Your task to perform on an android device: open app "Indeed Job Search" Image 0: 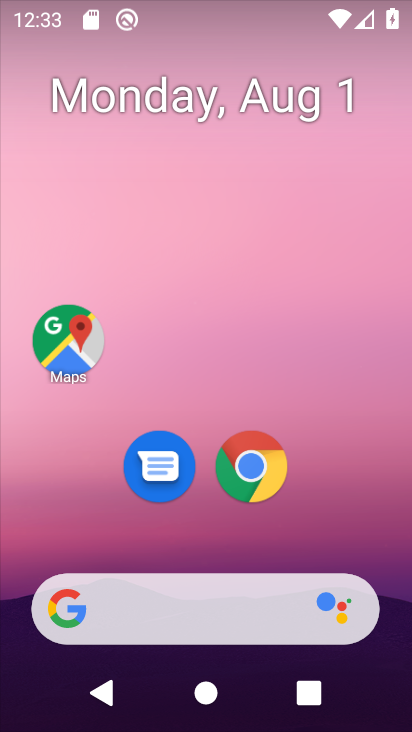
Step 0: drag from (206, 543) to (63, 218)
Your task to perform on an android device: open app "Indeed Job Search" Image 1: 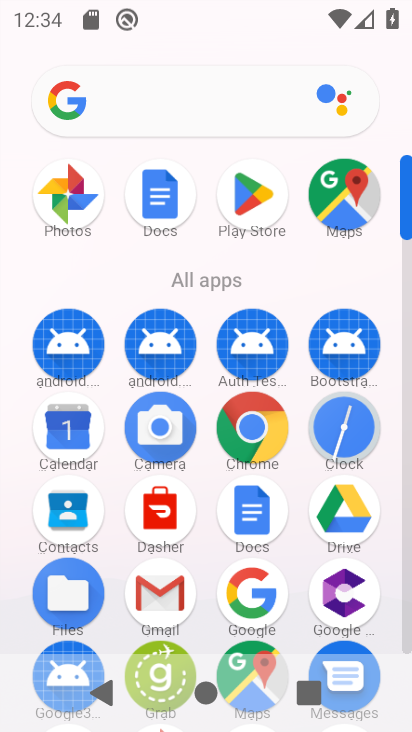
Step 1: click (253, 198)
Your task to perform on an android device: open app "Indeed Job Search" Image 2: 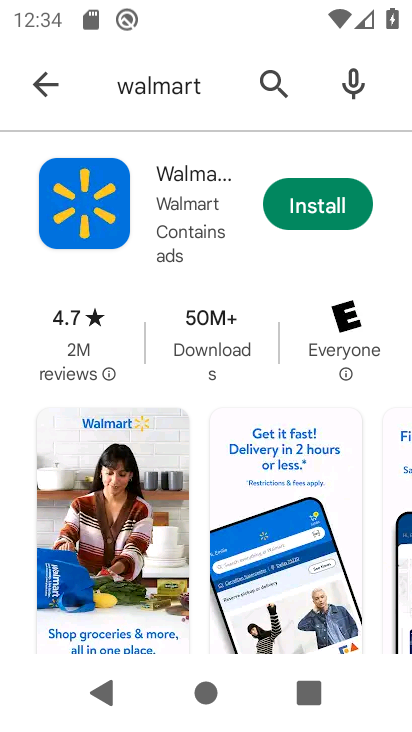
Step 2: click (161, 95)
Your task to perform on an android device: open app "Indeed Job Search" Image 3: 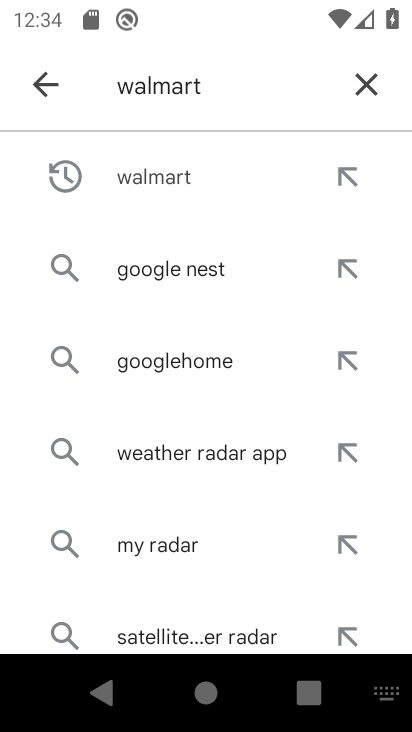
Step 3: click (360, 82)
Your task to perform on an android device: open app "Indeed Job Search" Image 4: 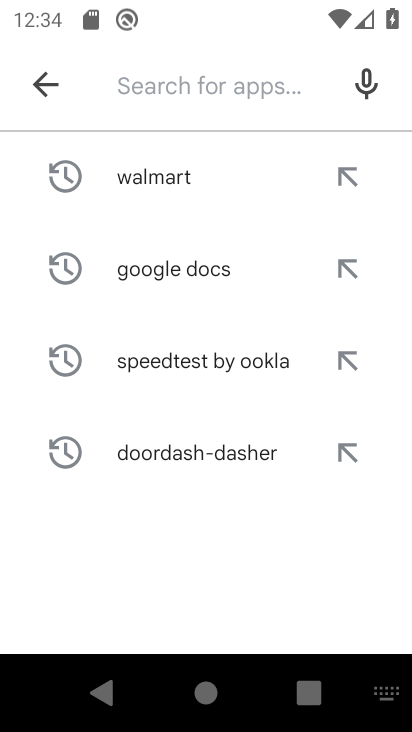
Step 4: type "indeed job search"
Your task to perform on an android device: open app "Indeed Job Search" Image 5: 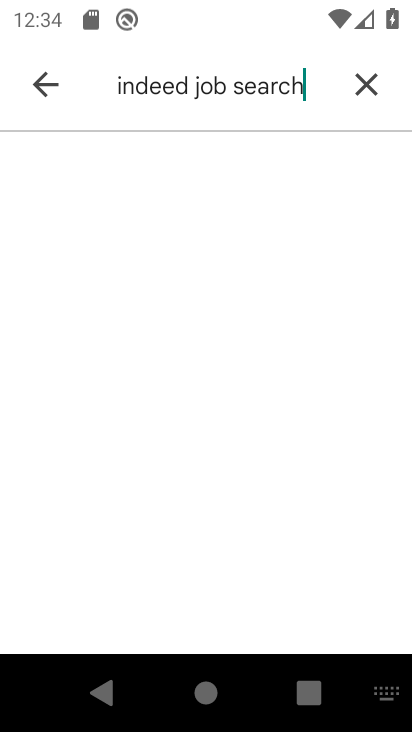
Step 5: click (151, 192)
Your task to perform on an android device: open app "Indeed Job Search" Image 6: 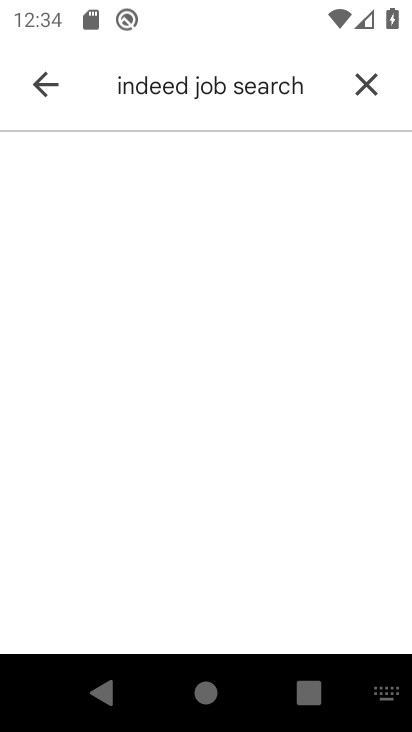
Step 6: click (181, 181)
Your task to perform on an android device: open app "Indeed Job Search" Image 7: 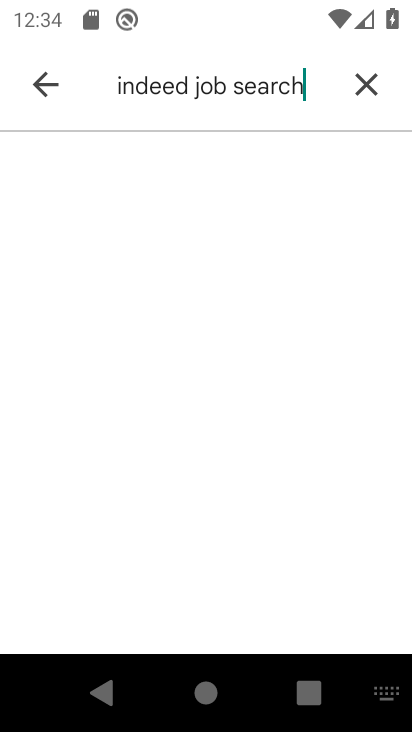
Step 7: drag from (240, 290) to (356, 9)
Your task to perform on an android device: open app "Indeed Job Search" Image 8: 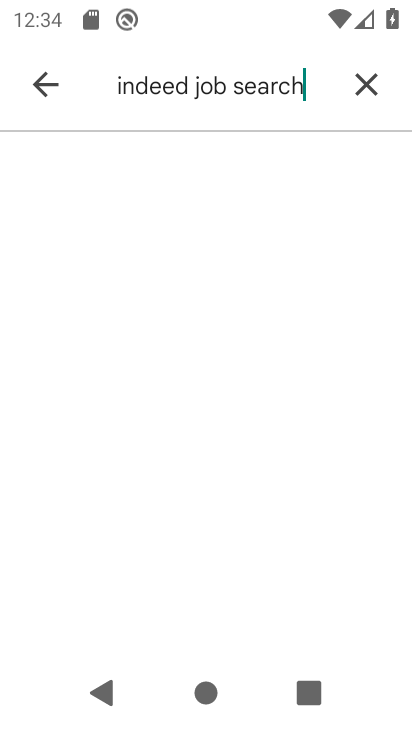
Step 8: drag from (146, 197) to (51, 78)
Your task to perform on an android device: open app "Indeed Job Search" Image 9: 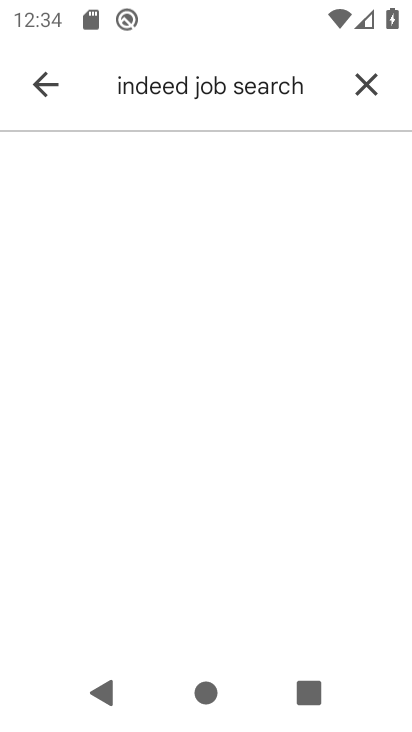
Step 9: click (366, 85)
Your task to perform on an android device: open app "Indeed Job Search" Image 10: 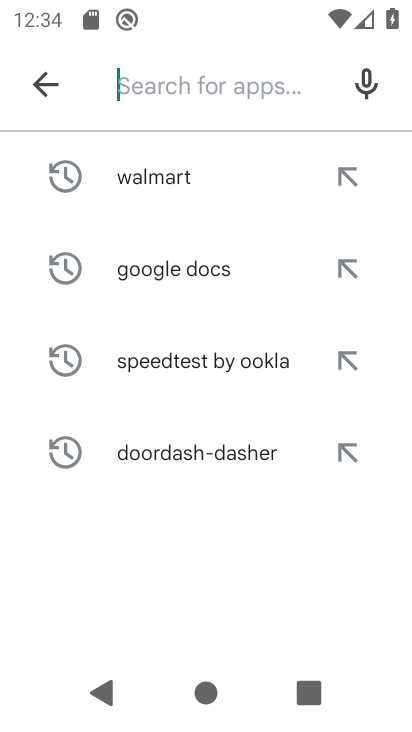
Step 10: type "indeed"
Your task to perform on an android device: open app "Indeed Job Search" Image 11: 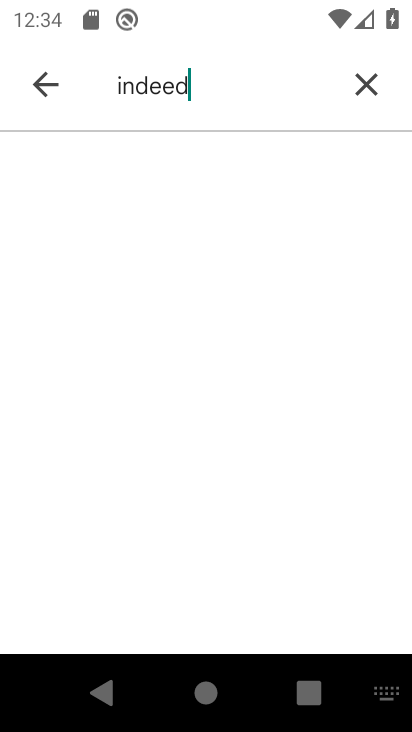
Step 11: click (153, 210)
Your task to perform on an android device: open app "Indeed Job Search" Image 12: 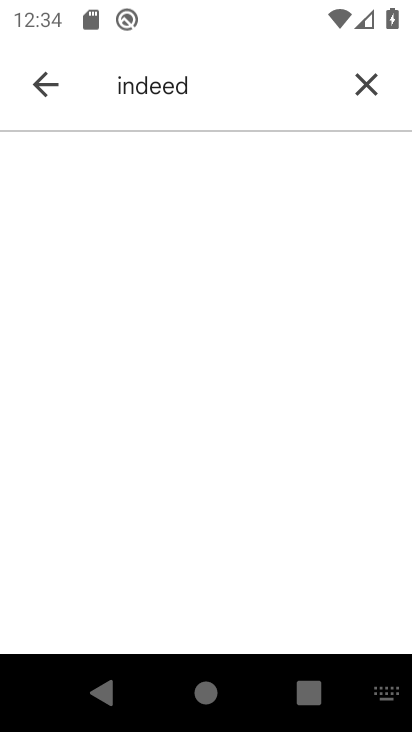
Step 12: task complete